Your task to perform on an android device: turn on wifi Image 0: 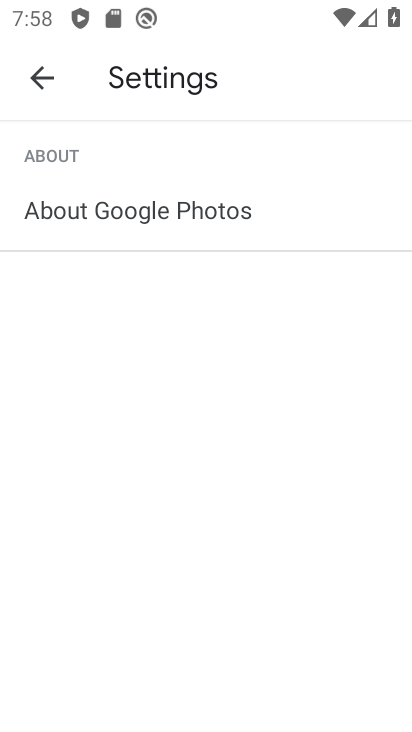
Step 0: press home button
Your task to perform on an android device: turn on wifi Image 1: 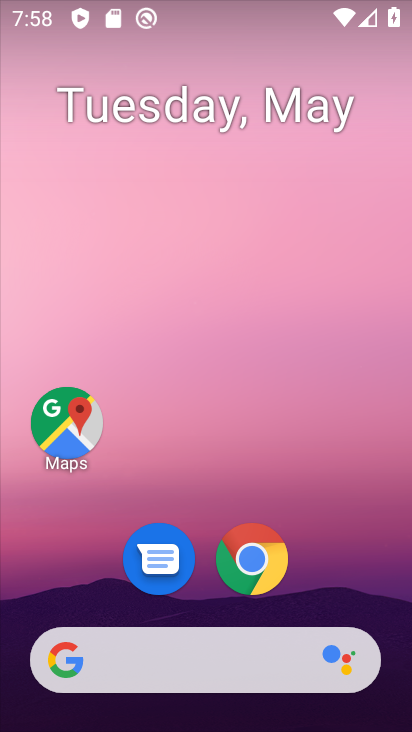
Step 1: drag from (203, 607) to (210, 200)
Your task to perform on an android device: turn on wifi Image 2: 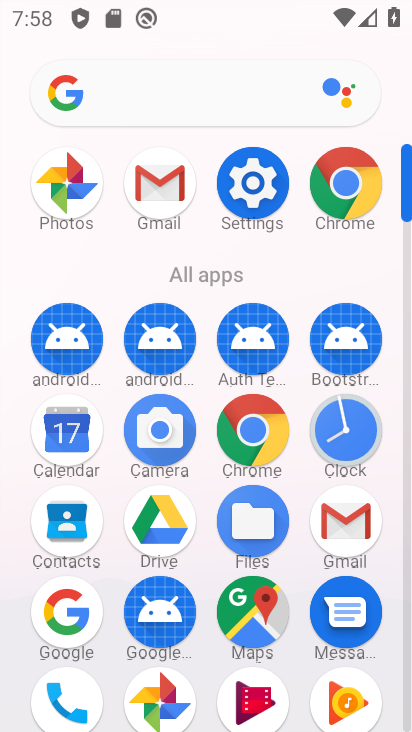
Step 2: click (244, 201)
Your task to perform on an android device: turn on wifi Image 3: 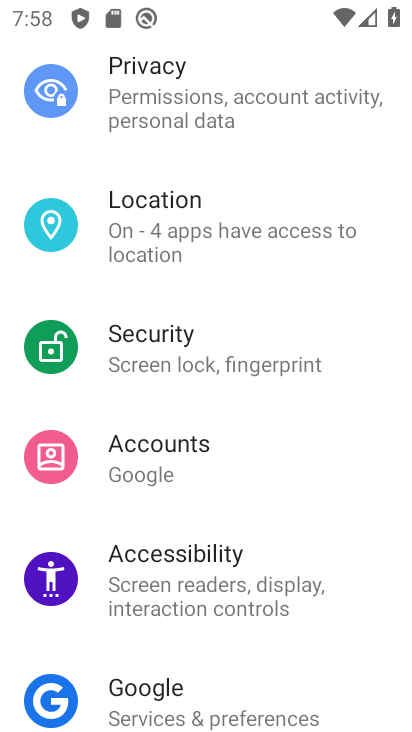
Step 3: drag from (197, 94) to (226, 526)
Your task to perform on an android device: turn on wifi Image 4: 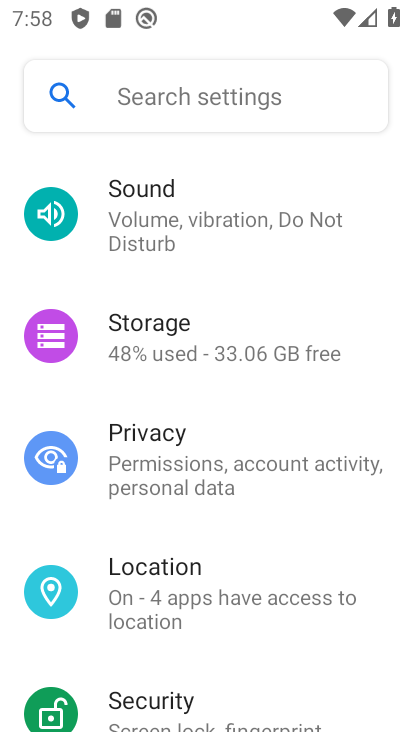
Step 4: drag from (214, 181) to (232, 545)
Your task to perform on an android device: turn on wifi Image 5: 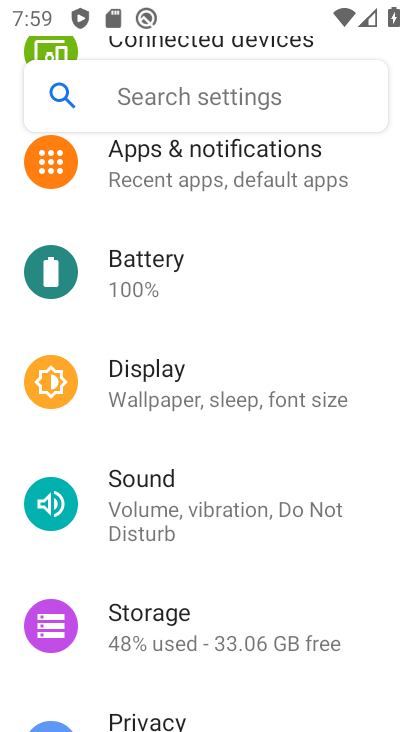
Step 5: drag from (242, 252) to (253, 570)
Your task to perform on an android device: turn on wifi Image 6: 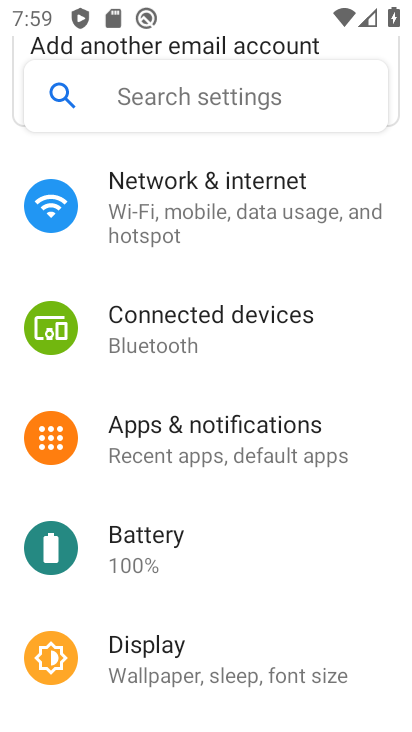
Step 6: click (227, 227)
Your task to perform on an android device: turn on wifi Image 7: 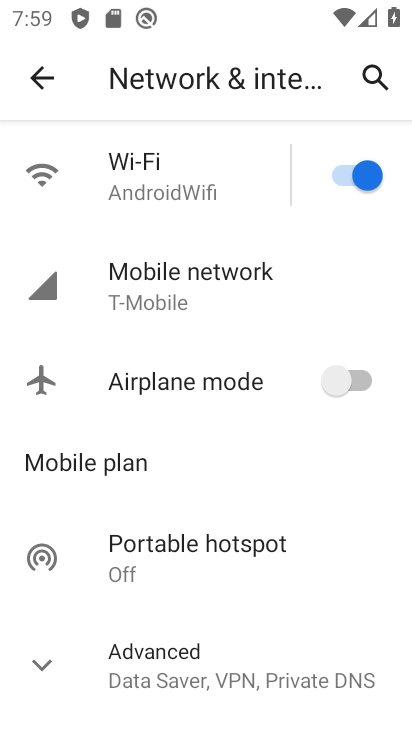
Step 7: task complete